Your task to perform on an android device: Open calendar and show me the third week of next month Image 0: 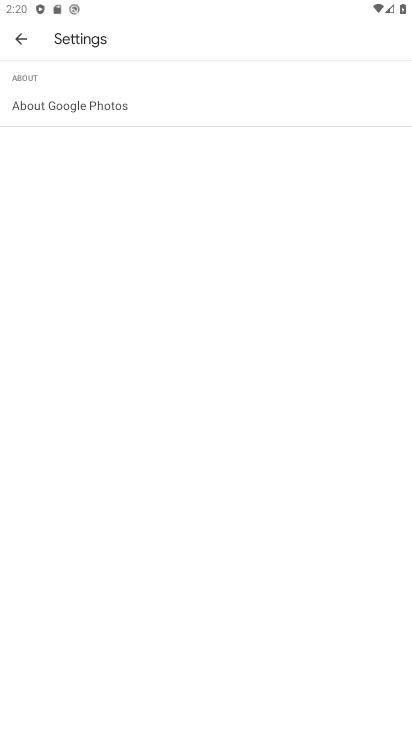
Step 0: press home button
Your task to perform on an android device: Open calendar and show me the third week of next month Image 1: 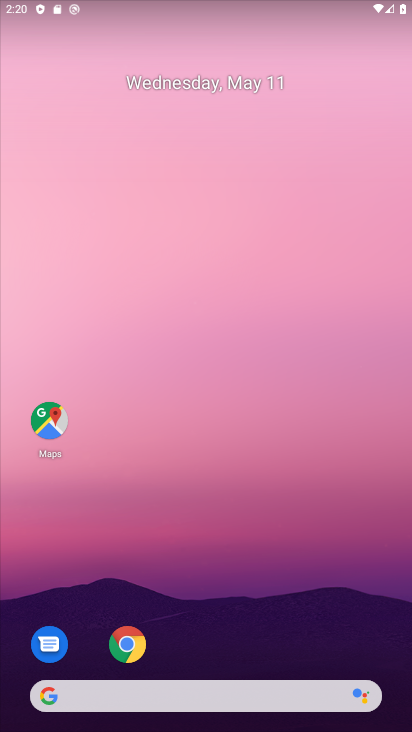
Step 1: drag from (266, 655) to (292, 198)
Your task to perform on an android device: Open calendar and show me the third week of next month Image 2: 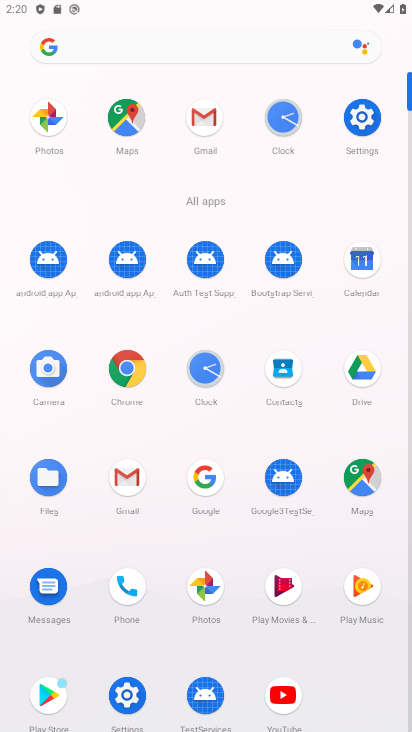
Step 2: click (358, 264)
Your task to perform on an android device: Open calendar and show me the third week of next month Image 3: 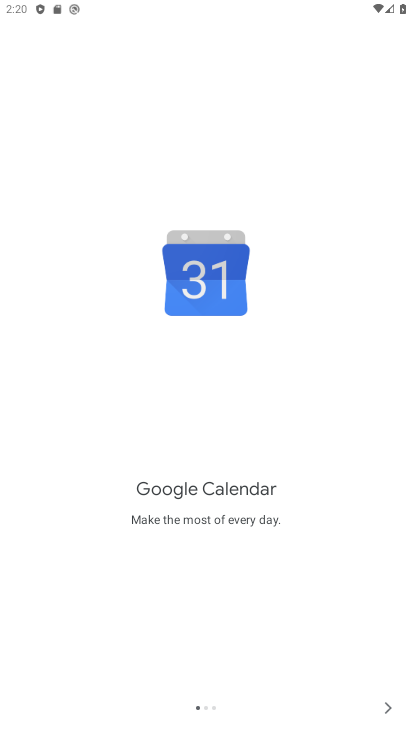
Step 3: click (390, 704)
Your task to perform on an android device: Open calendar and show me the third week of next month Image 4: 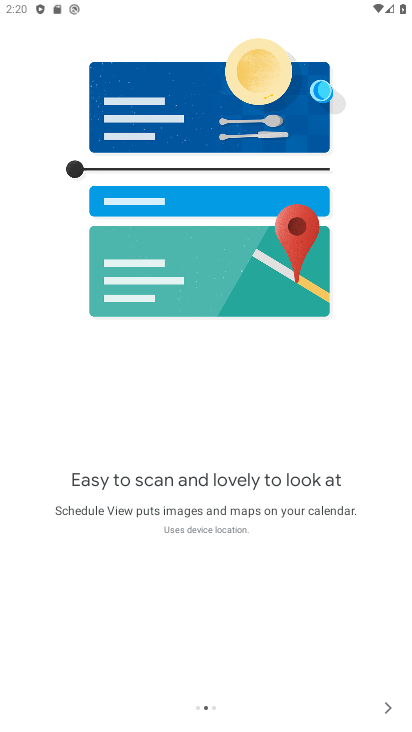
Step 4: click (390, 704)
Your task to perform on an android device: Open calendar and show me the third week of next month Image 5: 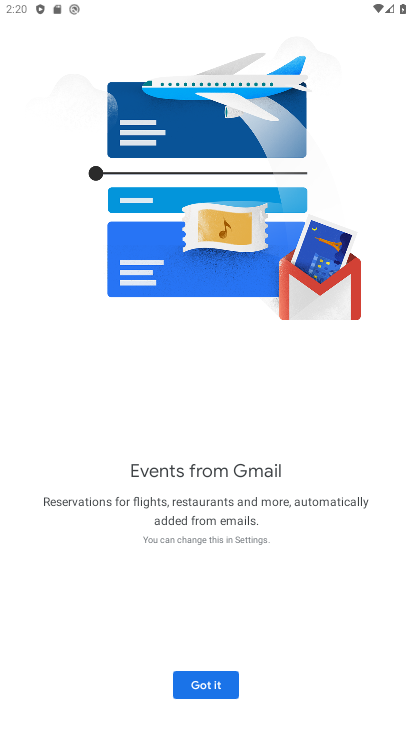
Step 5: click (200, 685)
Your task to perform on an android device: Open calendar and show me the third week of next month Image 6: 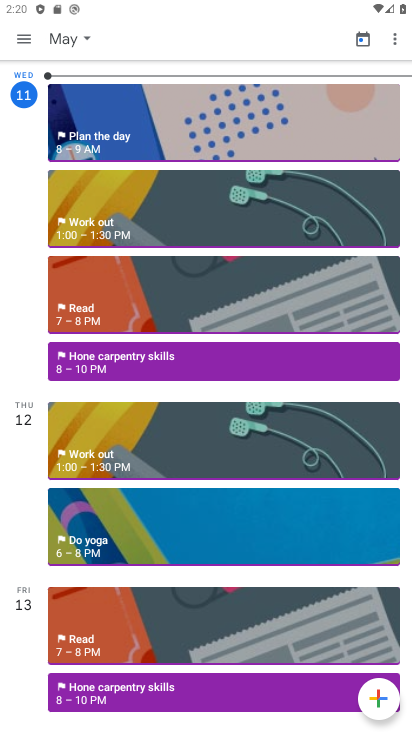
Step 6: click (79, 29)
Your task to perform on an android device: Open calendar and show me the third week of next month Image 7: 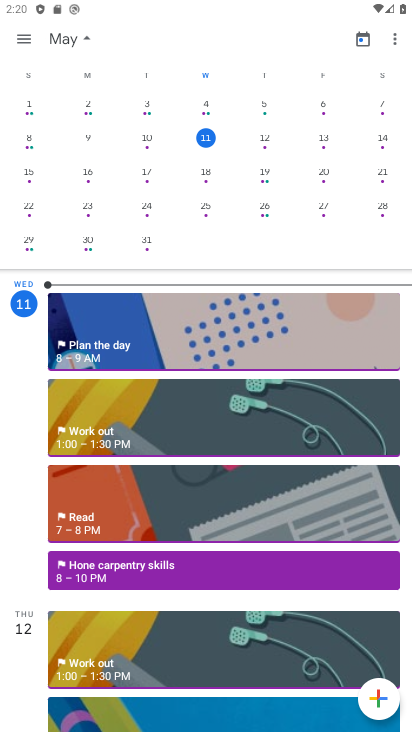
Step 7: drag from (367, 193) to (7, 217)
Your task to perform on an android device: Open calendar and show me the third week of next month Image 8: 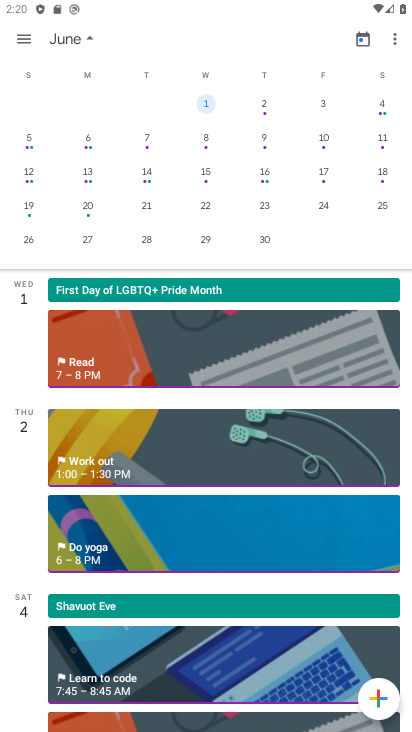
Step 8: click (30, 176)
Your task to perform on an android device: Open calendar and show me the third week of next month Image 9: 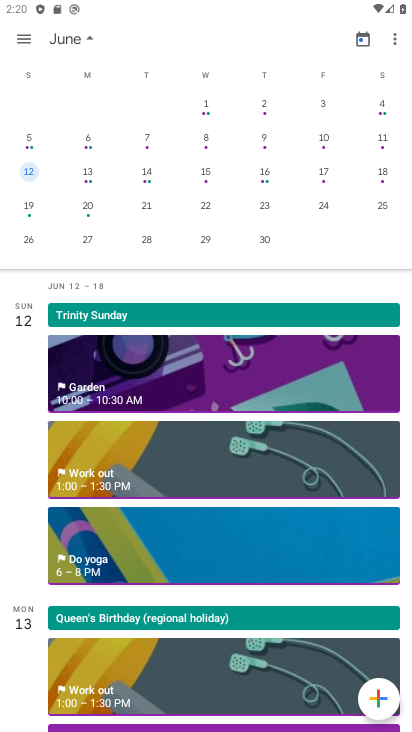
Step 9: task complete